Your task to perform on an android device: Open Google Maps Image 0: 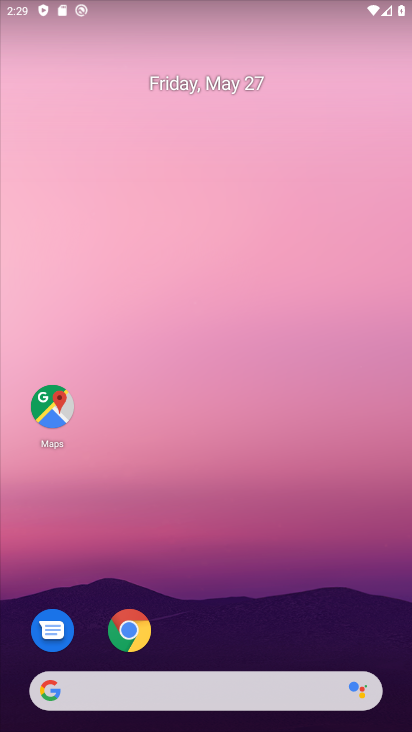
Step 0: drag from (194, 670) to (121, 126)
Your task to perform on an android device: Open Google Maps Image 1: 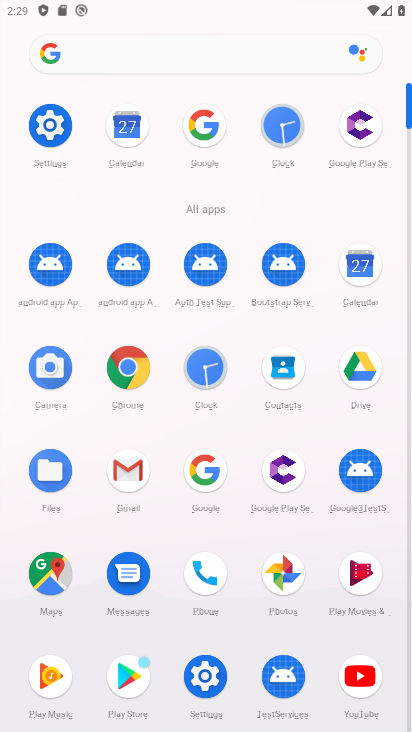
Step 1: click (42, 553)
Your task to perform on an android device: Open Google Maps Image 2: 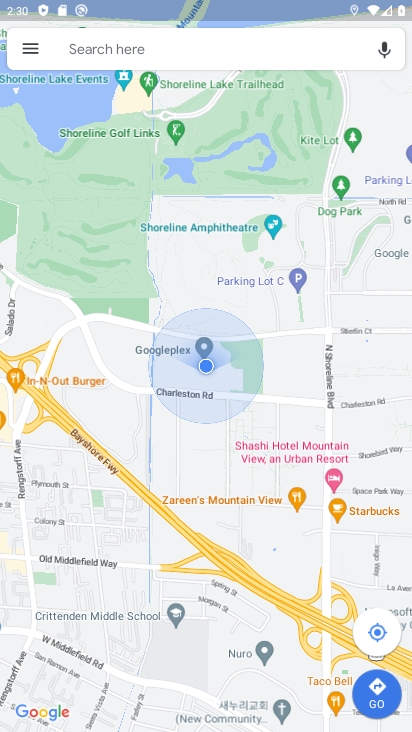
Step 2: task complete